Your task to perform on an android device: uninstall "YouTube Kids" Image 0: 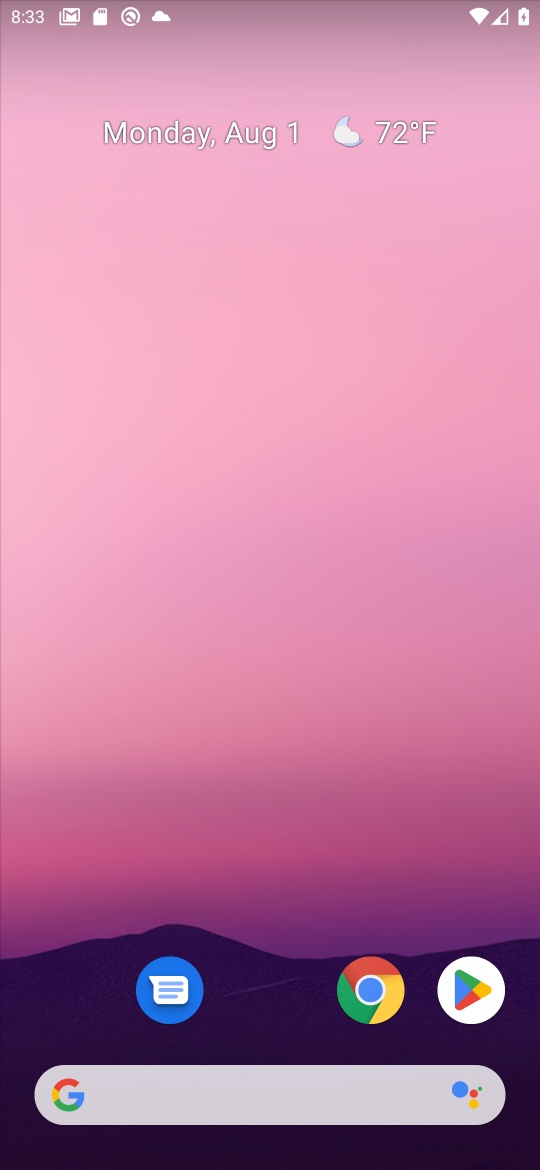
Step 0: click (456, 983)
Your task to perform on an android device: uninstall "YouTube Kids" Image 1: 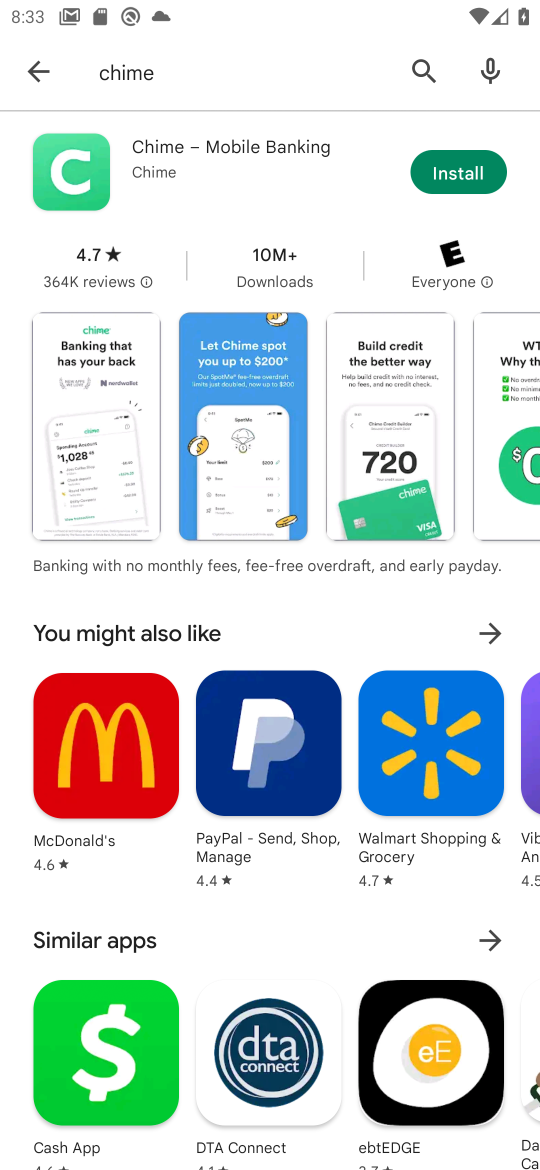
Step 1: click (414, 59)
Your task to perform on an android device: uninstall "YouTube Kids" Image 2: 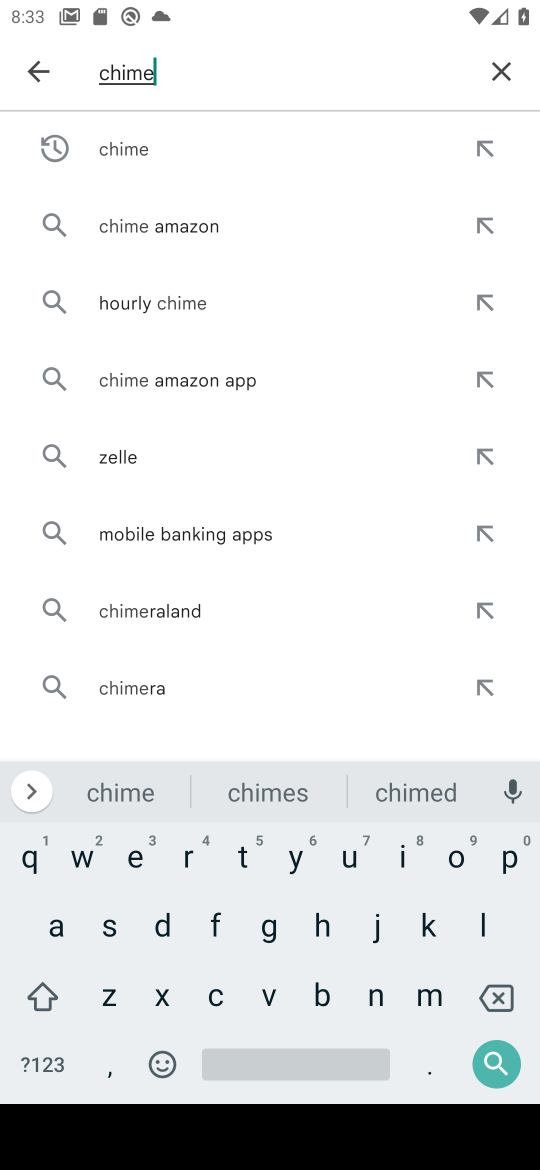
Step 2: click (499, 70)
Your task to perform on an android device: uninstall "YouTube Kids" Image 3: 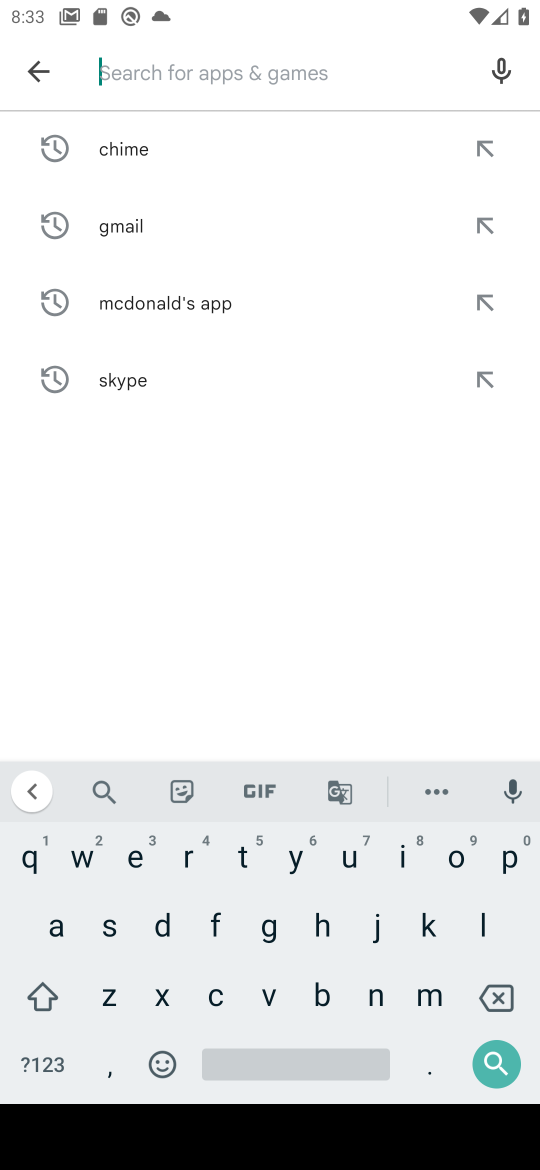
Step 3: click (290, 863)
Your task to perform on an android device: uninstall "YouTube Kids" Image 4: 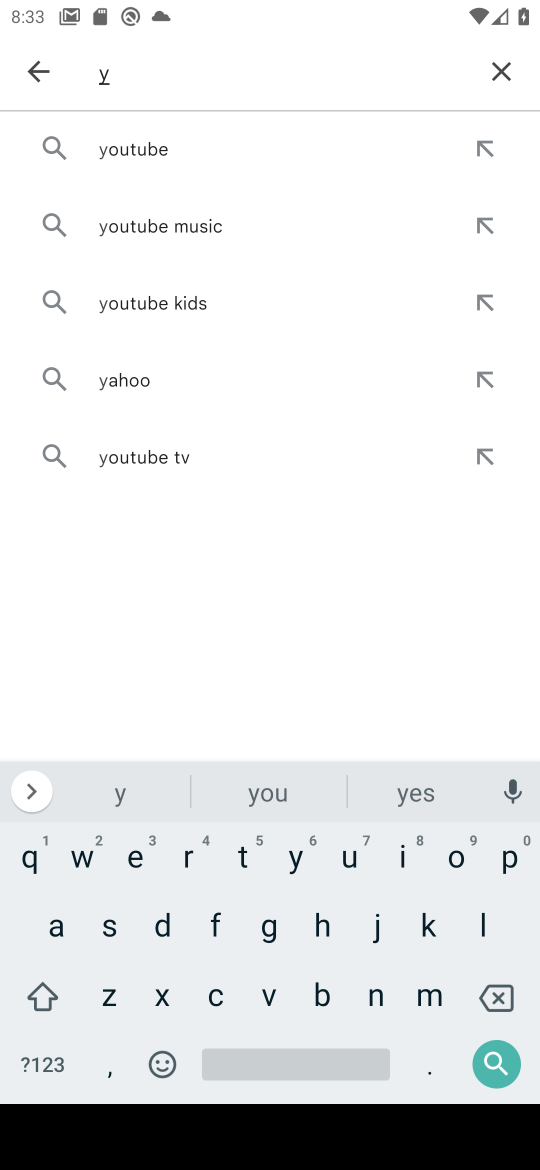
Step 4: click (461, 857)
Your task to perform on an android device: uninstall "YouTube Kids" Image 5: 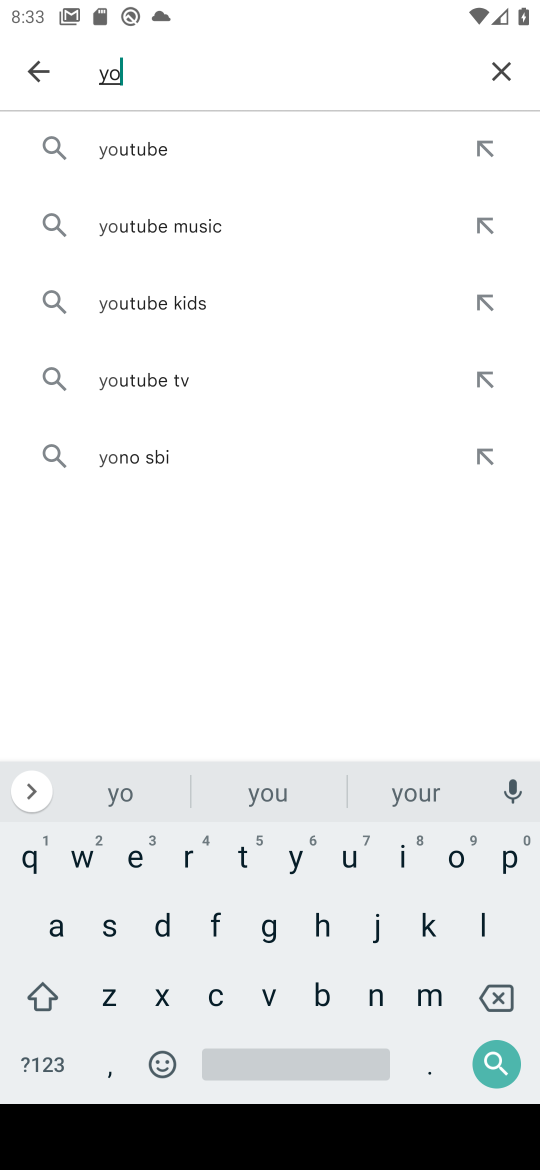
Step 5: click (162, 303)
Your task to perform on an android device: uninstall "YouTube Kids" Image 6: 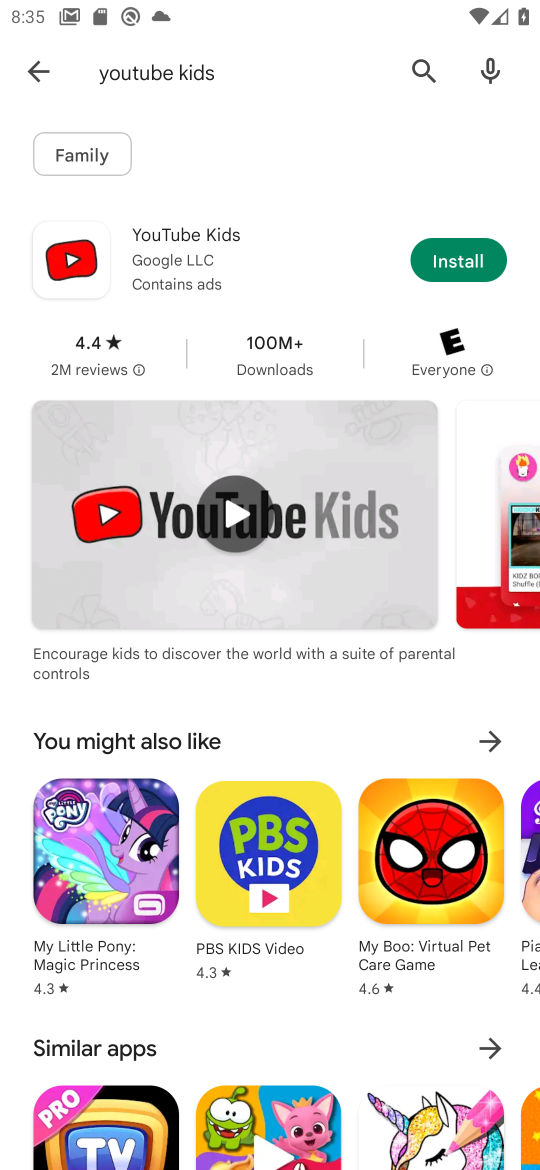
Step 6: task complete